Your task to perform on an android device: Toggle the flashlight Image 0: 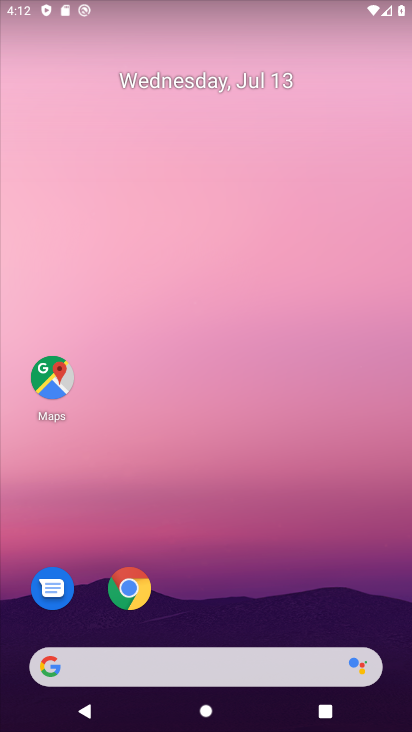
Step 0: drag from (343, 7) to (336, 629)
Your task to perform on an android device: Toggle the flashlight Image 1: 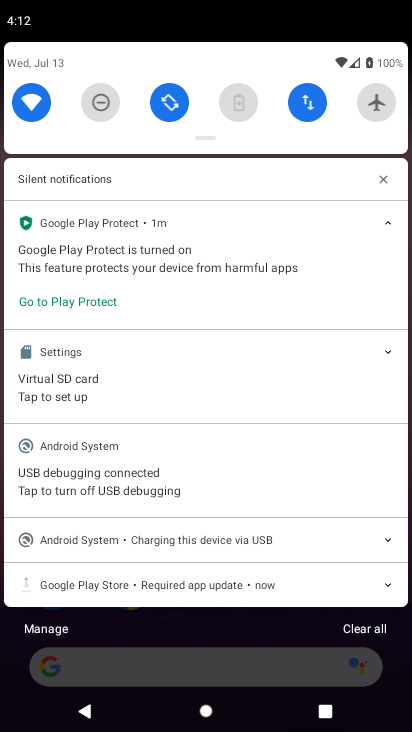
Step 1: task complete